Your task to perform on an android device: turn on the 24-hour format for clock Image 0: 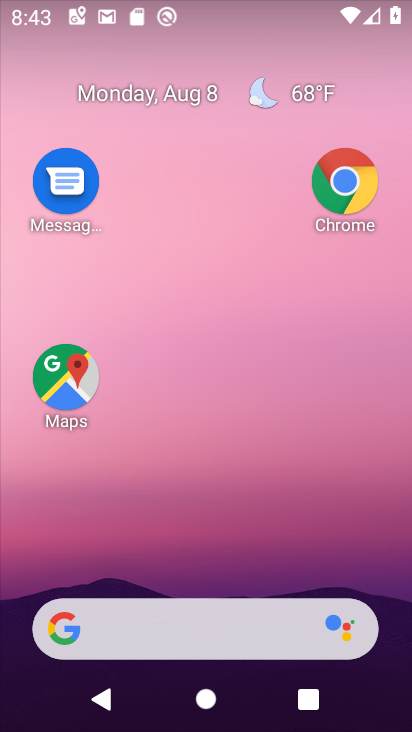
Step 0: drag from (197, 566) to (229, 79)
Your task to perform on an android device: turn on the 24-hour format for clock Image 1: 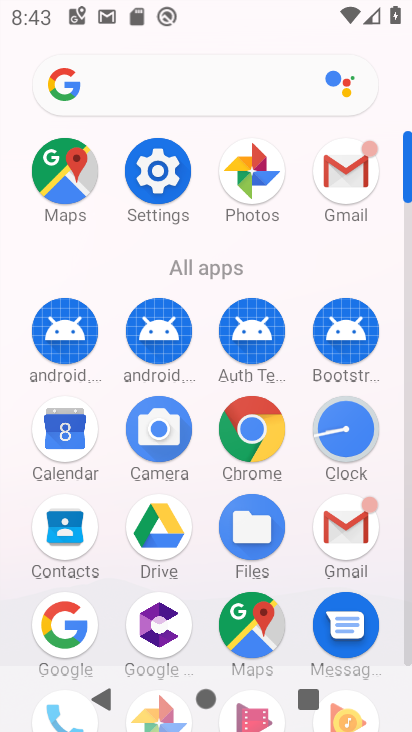
Step 1: click (360, 436)
Your task to perform on an android device: turn on the 24-hour format for clock Image 2: 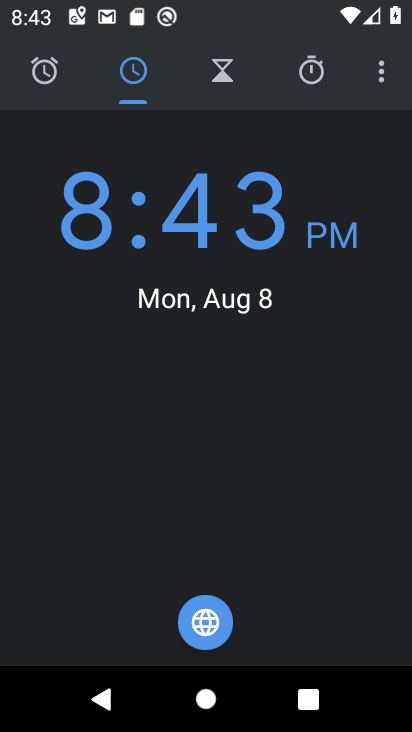
Step 2: click (388, 76)
Your task to perform on an android device: turn on the 24-hour format for clock Image 3: 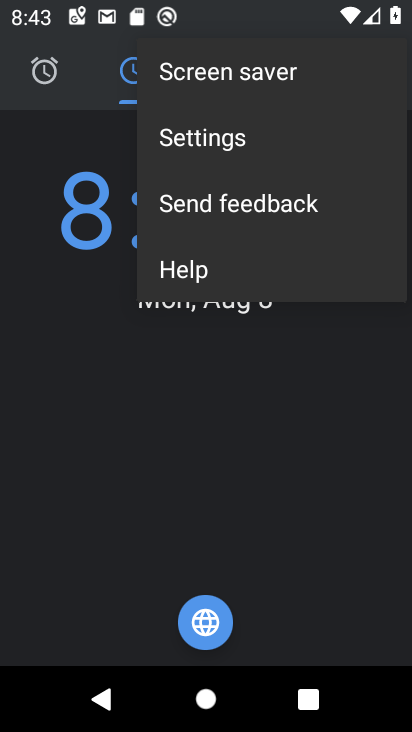
Step 3: click (202, 141)
Your task to perform on an android device: turn on the 24-hour format for clock Image 4: 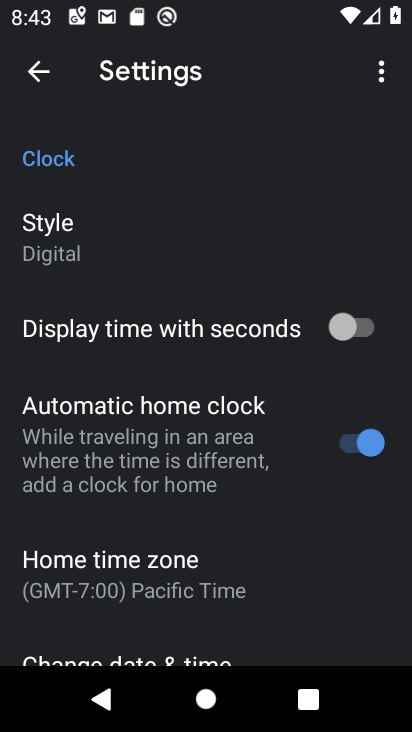
Step 4: drag from (139, 548) to (143, 175)
Your task to perform on an android device: turn on the 24-hour format for clock Image 5: 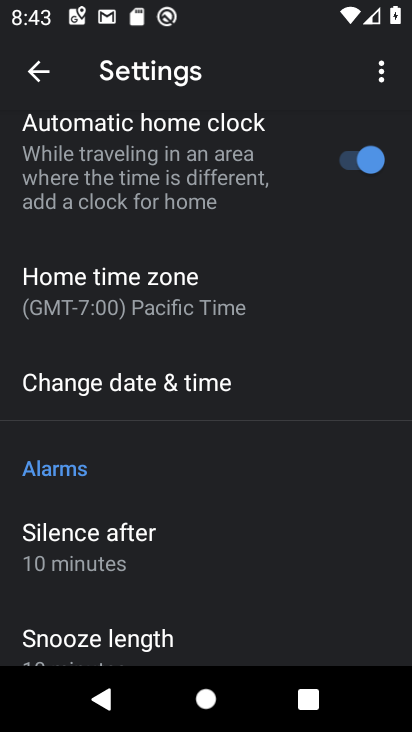
Step 5: click (87, 377)
Your task to perform on an android device: turn on the 24-hour format for clock Image 6: 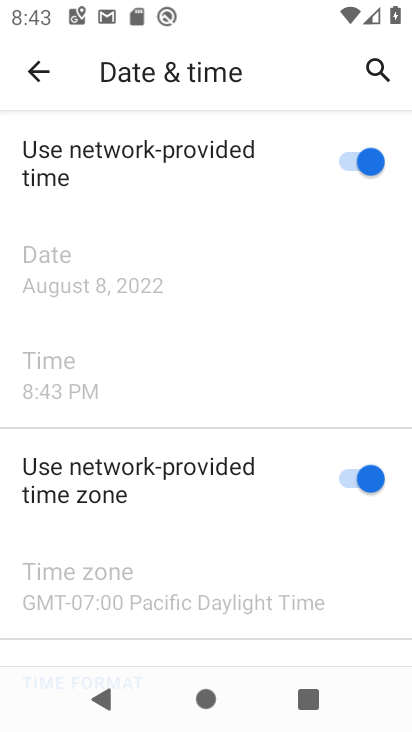
Step 6: drag from (320, 530) to (314, 87)
Your task to perform on an android device: turn on the 24-hour format for clock Image 7: 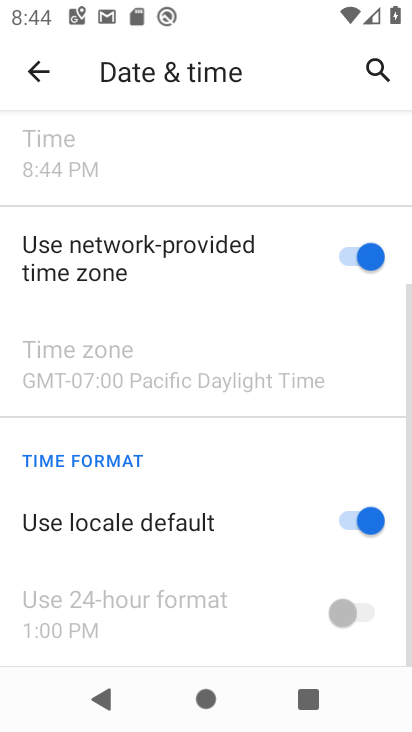
Step 7: click (333, 512)
Your task to perform on an android device: turn on the 24-hour format for clock Image 8: 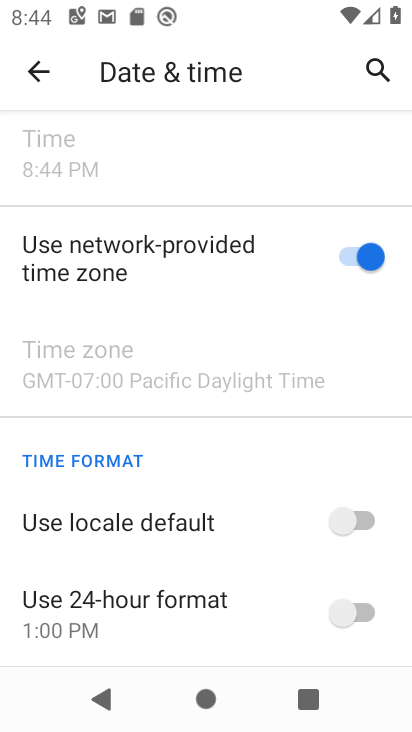
Step 8: click (347, 634)
Your task to perform on an android device: turn on the 24-hour format for clock Image 9: 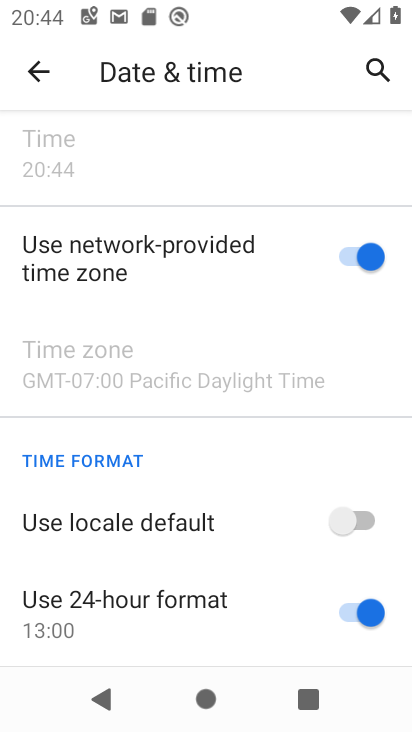
Step 9: task complete